Your task to perform on an android device: install app "Move to iOS" Image 0: 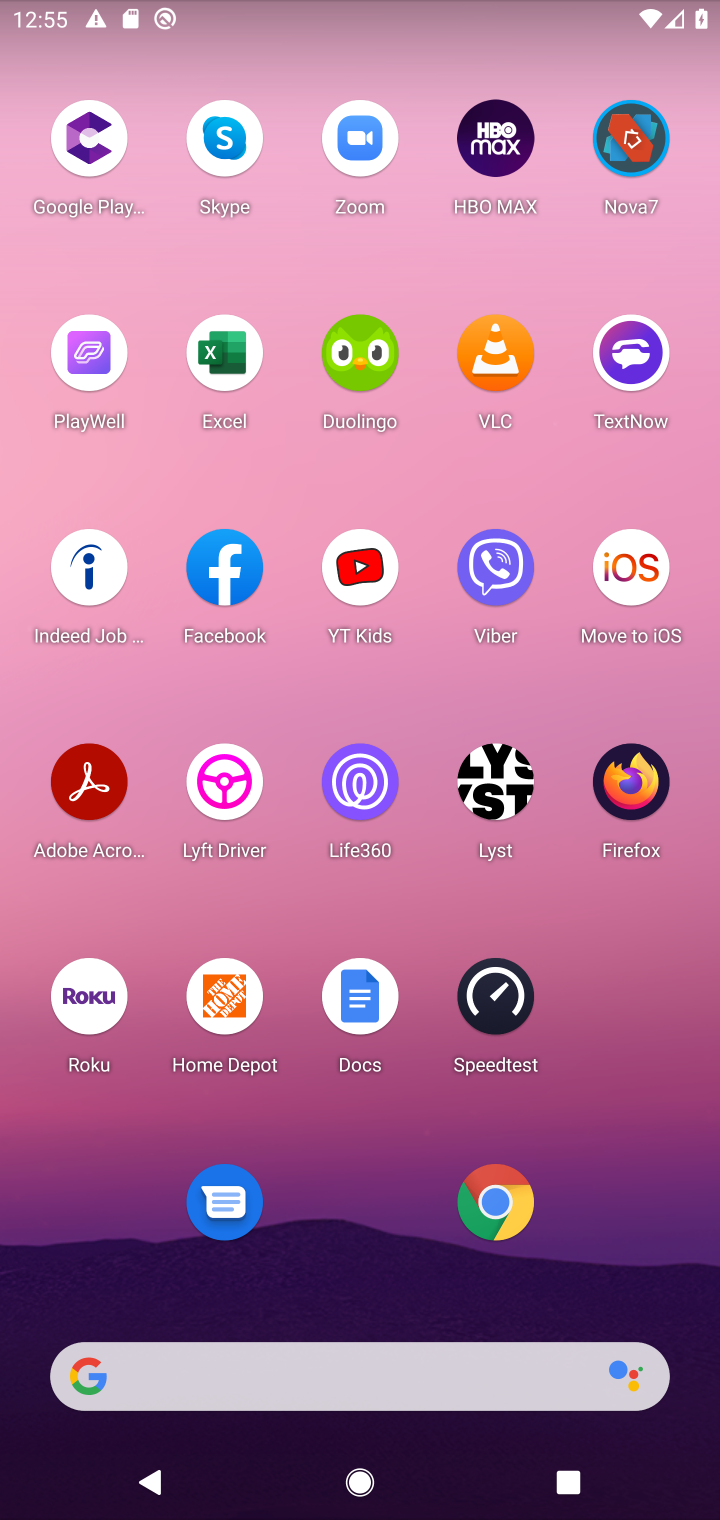
Step 0: click (469, 1357)
Your task to perform on an android device: install app "Move to iOS" Image 1: 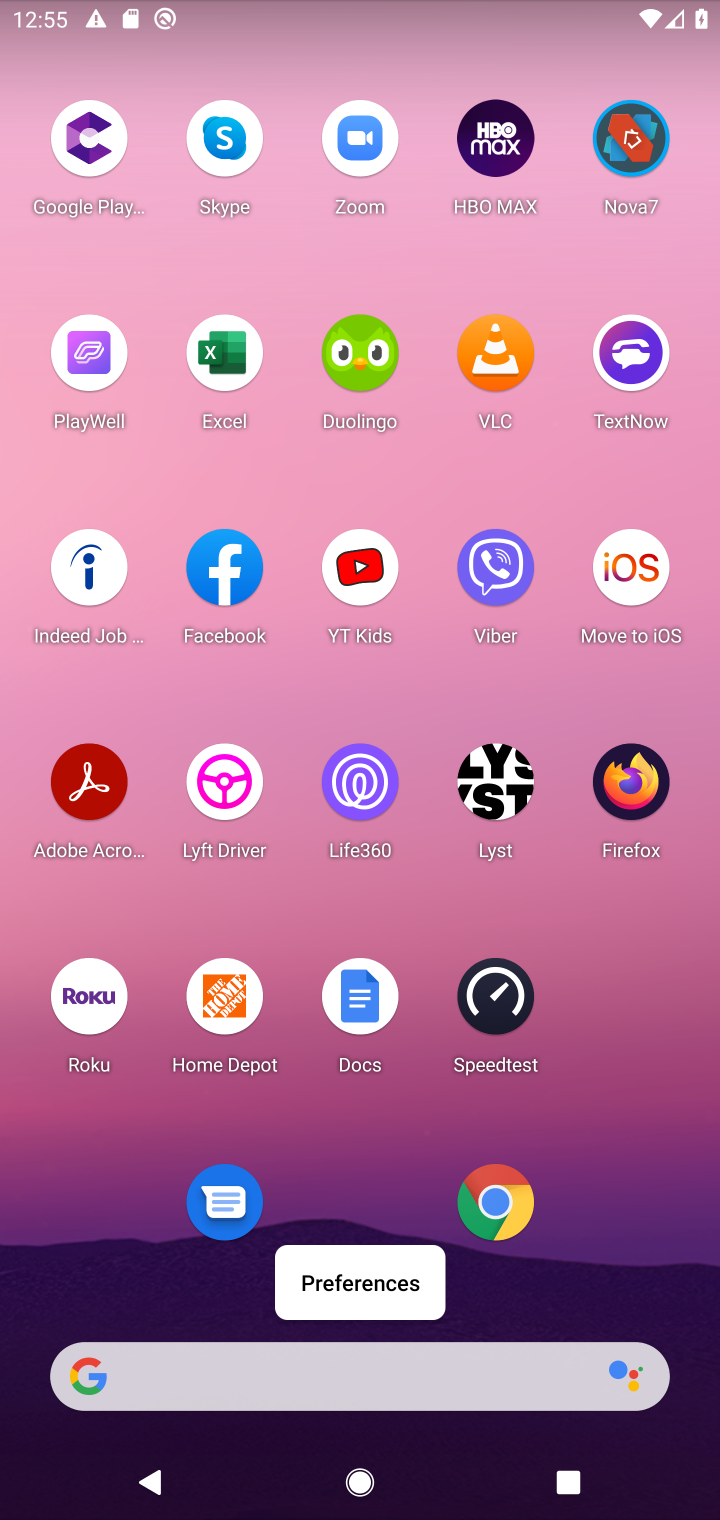
Step 1: click (331, 1384)
Your task to perform on an android device: install app "Move to iOS" Image 2: 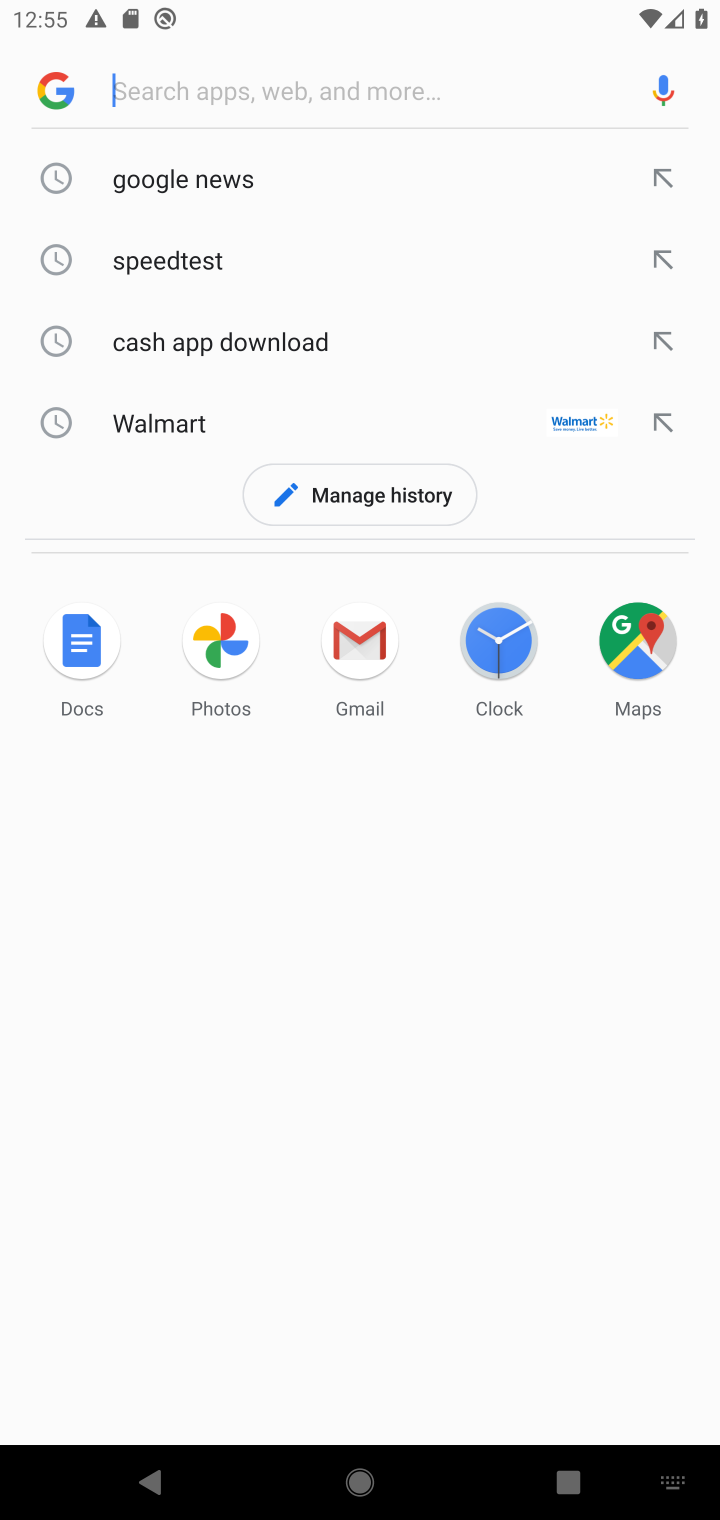
Step 2: type "move to iso"
Your task to perform on an android device: install app "Move to iOS" Image 3: 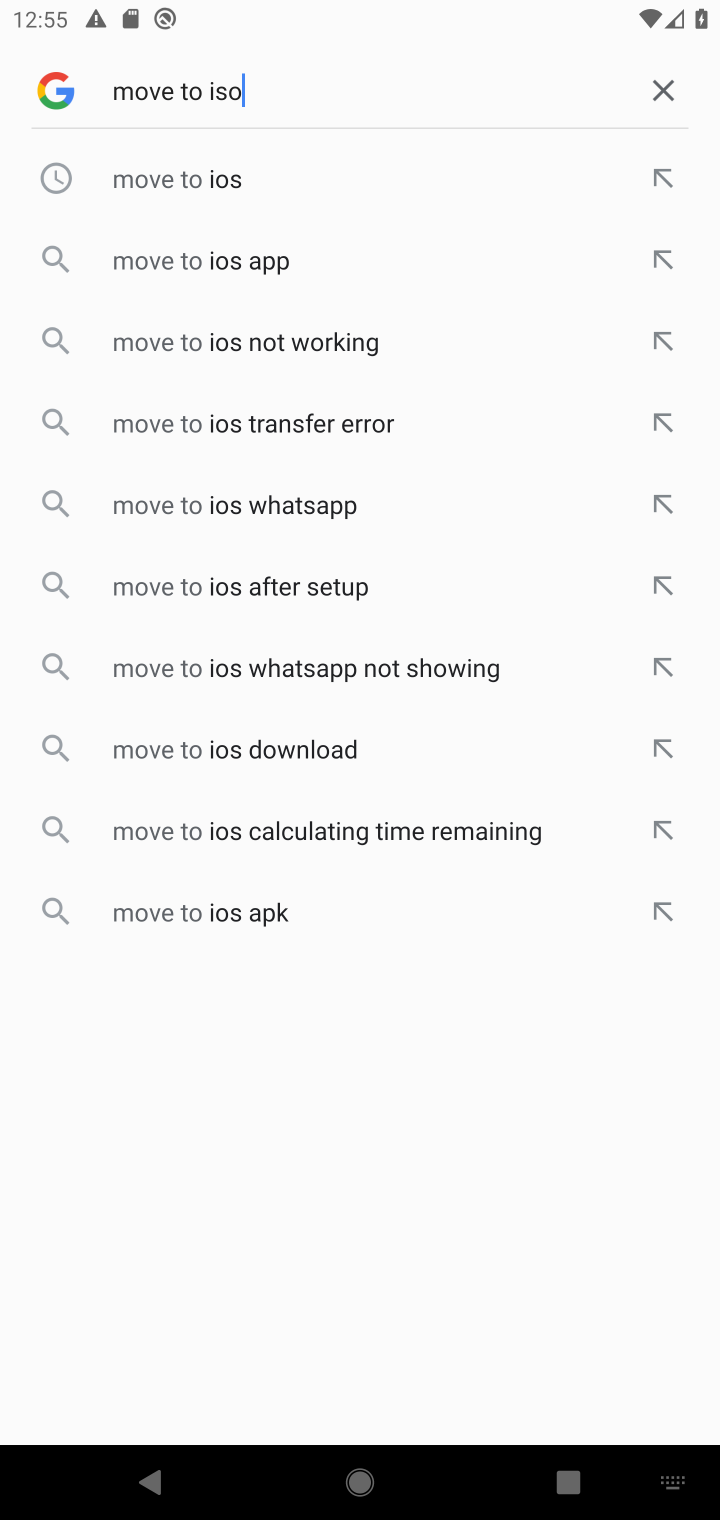
Step 3: click (241, 189)
Your task to perform on an android device: install app "Move to iOS" Image 4: 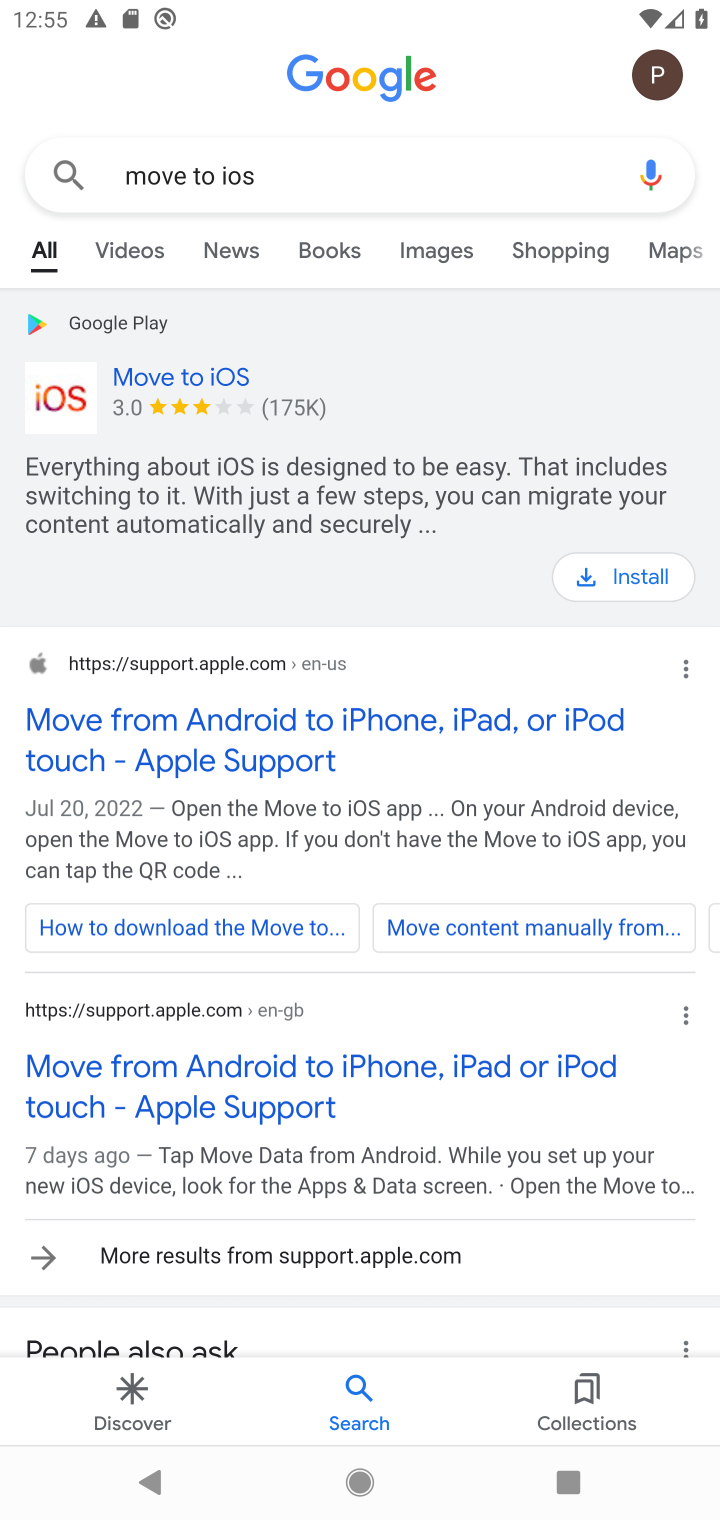
Step 4: click (632, 575)
Your task to perform on an android device: install app "Move to iOS" Image 5: 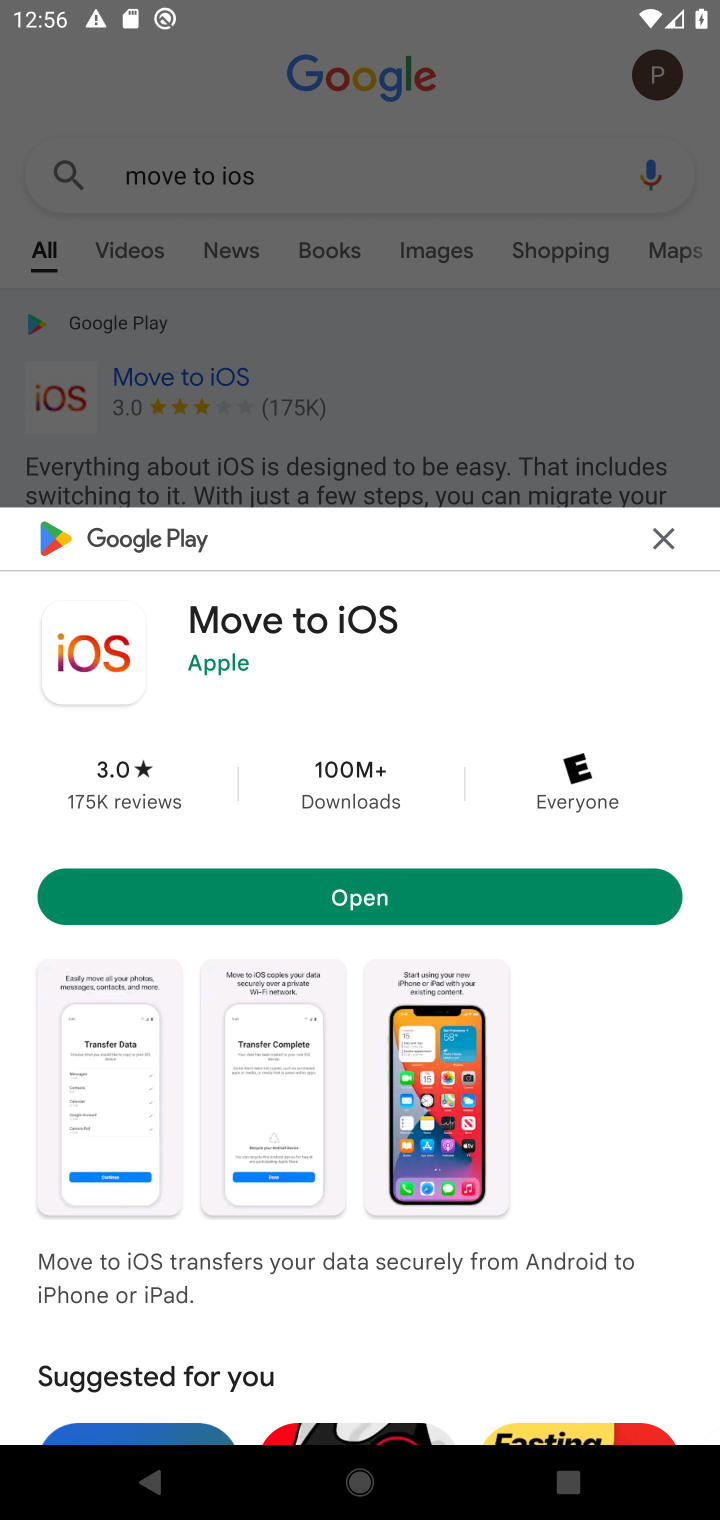
Step 5: click (202, 889)
Your task to perform on an android device: install app "Move to iOS" Image 6: 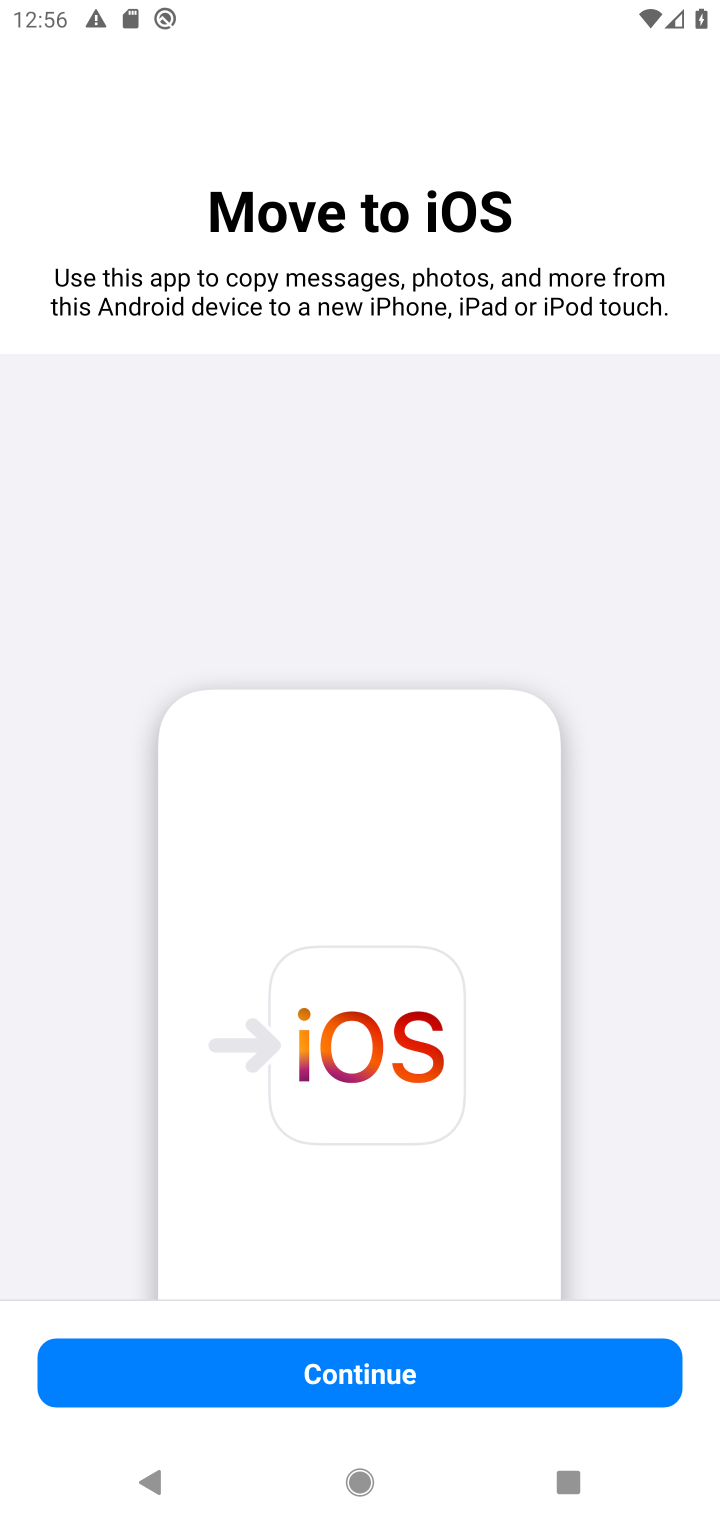
Step 6: task complete